Your task to perform on an android device: Go to accessibility settings Image 0: 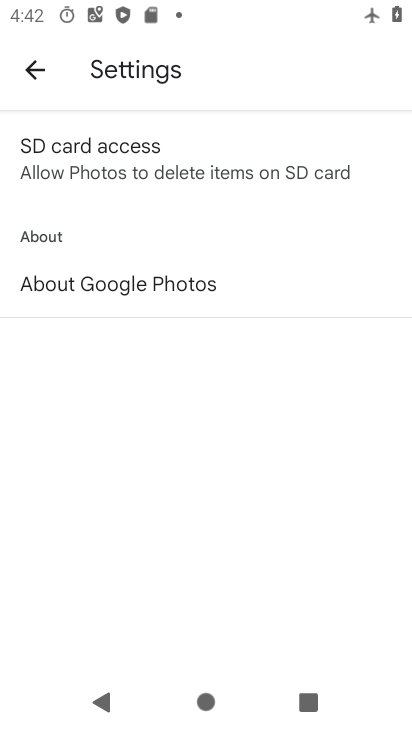
Step 0: press home button
Your task to perform on an android device: Go to accessibility settings Image 1: 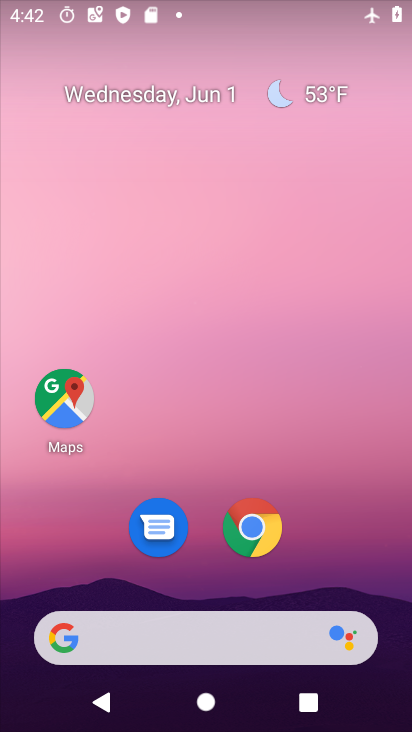
Step 1: drag from (318, 535) to (354, 64)
Your task to perform on an android device: Go to accessibility settings Image 2: 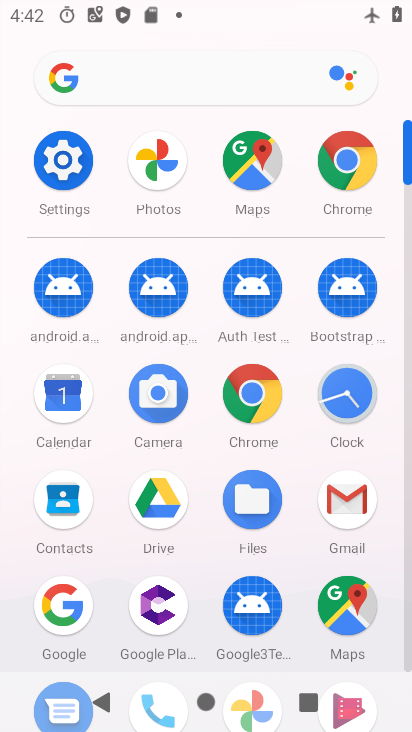
Step 2: click (61, 157)
Your task to perform on an android device: Go to accessibility settings Image 3: 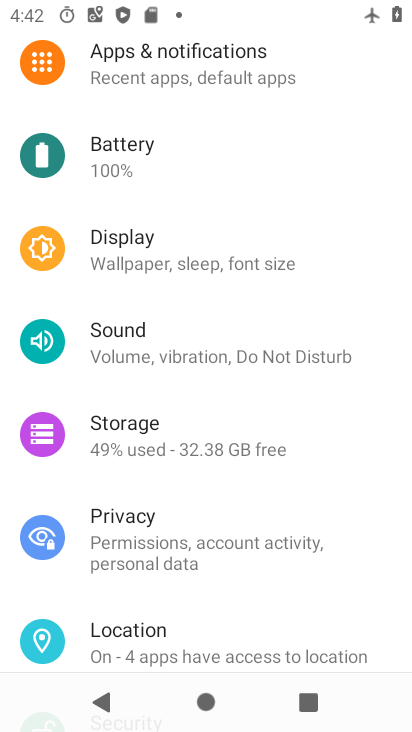
Step 3: drag from (326, 553) to (384, 198)
Your task to perform on an android device: Go to accessibility settings Image 4: 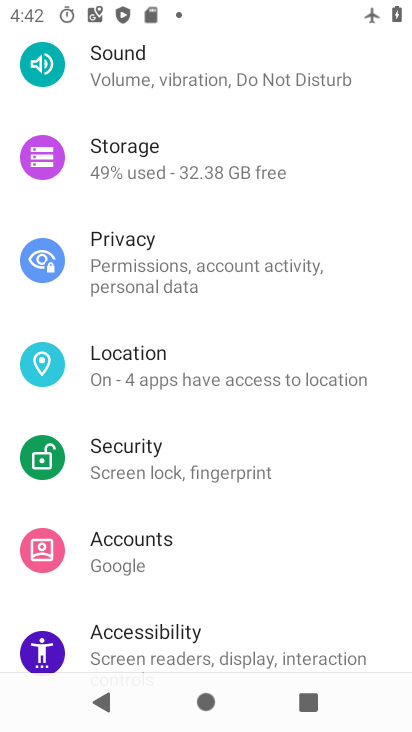
Step 4: click (161, 637)
Your task to perform on an android device: Go to accessibility settings Image 5: 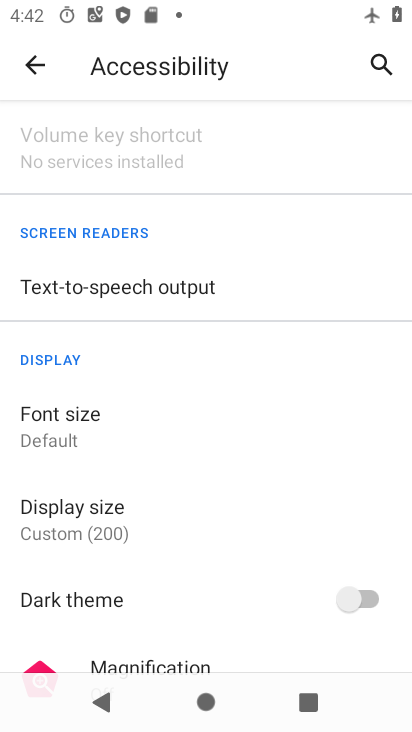
Step 5: task complete